Your task to perform on an android device: turn off javascript in the chrome app Image 0: 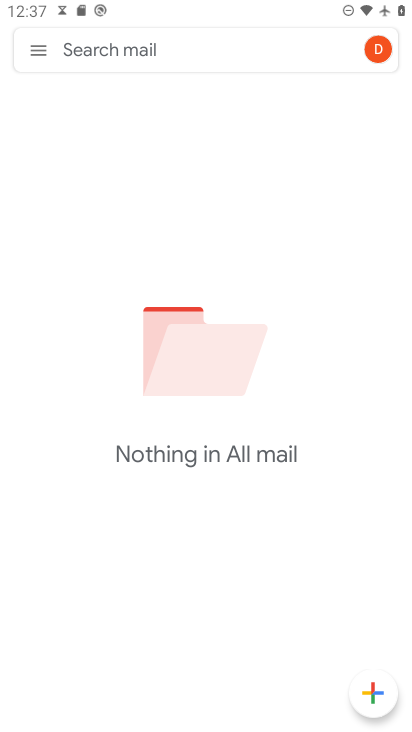
Step 0: press back button
Your task to perform on an android device: turn off javascript in the chrome app Image 1: 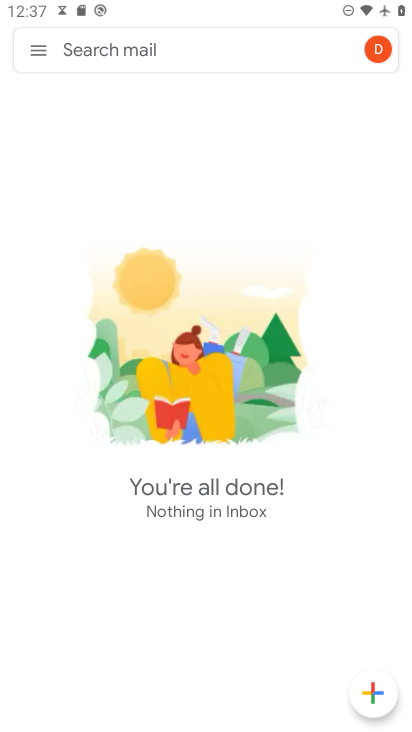
Step 1: press home button
Your task to perform on an android device: turn off javascript in the chrome app Image 2: 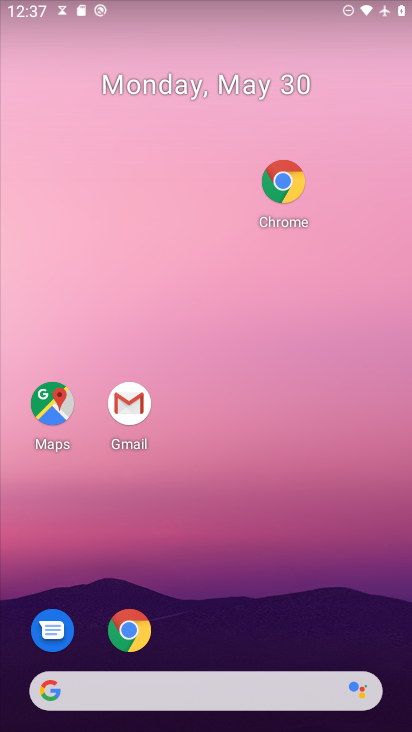
Step 2: drag from (256, 701) to (231, 118)
Your task to perform on an android device: turn off javascript in the chrome app Image 3: 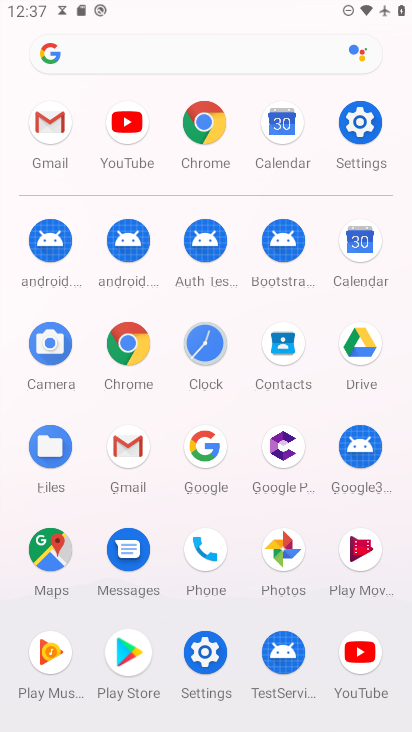
Step 3: click (203, 128)
Your task to perform on an android device: turn off javascript in the chrome app Image 4: 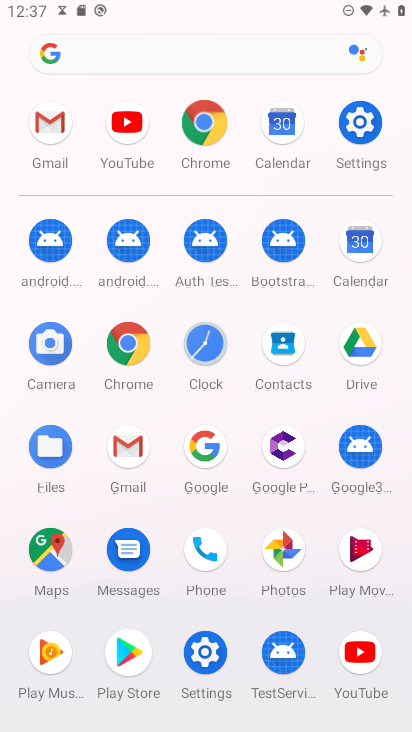
Step 4: click (203, 128)
Your task to perform on an android device: turn off javascript in the chrome app Image 5: 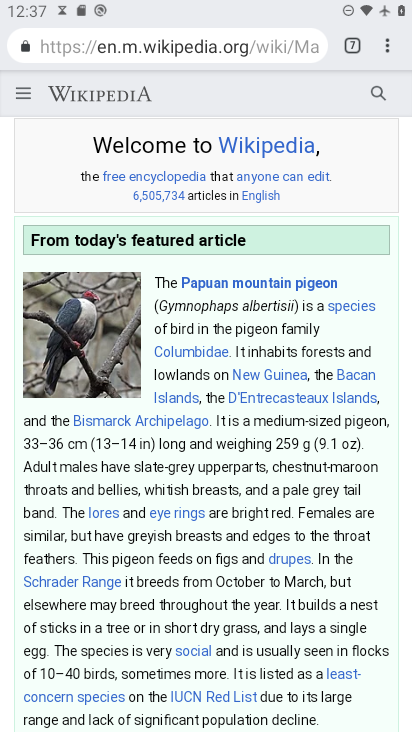
Step 5: drag from (385, 36) to (237, 546)
Your task to perform on an android device: turn off javascript in the chrome app Image 6: 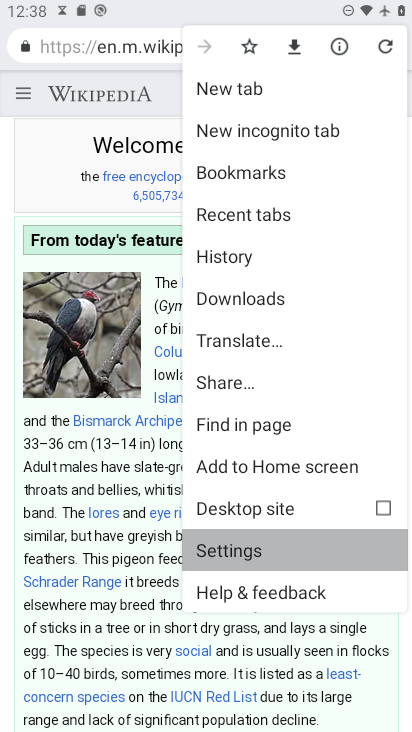
Step 6: click (237, 546)
Your task to perform on an android device: turn off javascript in the chrome app Image 7: 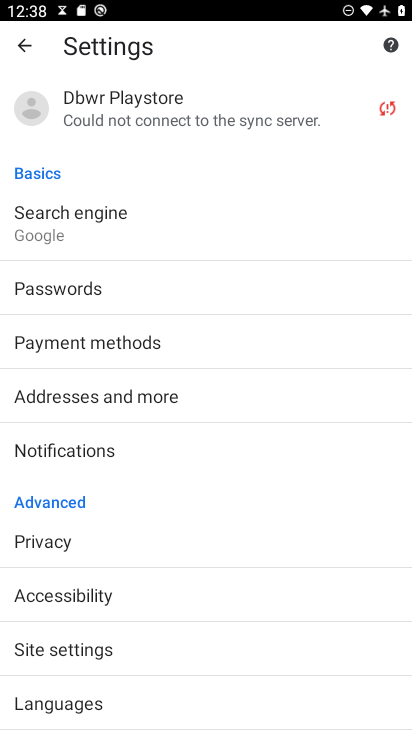
Step 7: click (57, 651)
Your task to perform on an android device: turn off javascript in the chrome app Image 8: 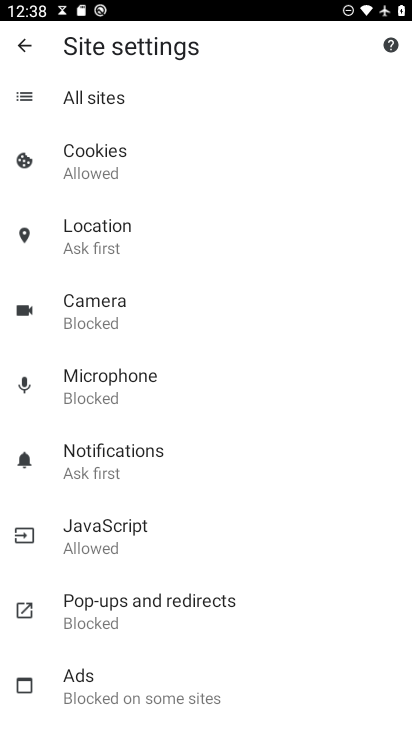
Step 8: click (104, 542)
Your task to perform on an android device: turn off javascript in the chrome app Image 9: 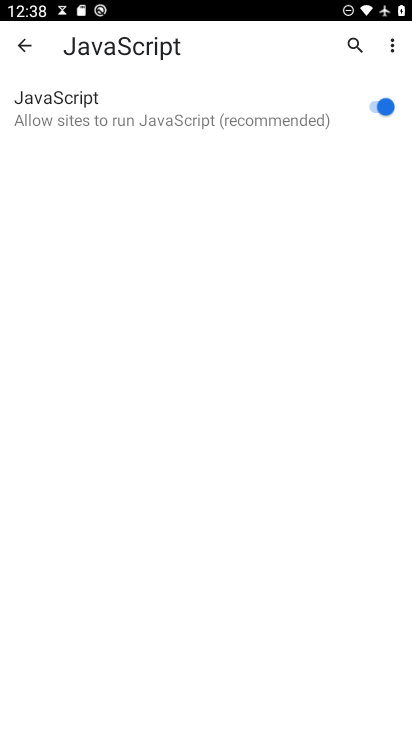
Step 9: click (386, 98)
Your task to perform on an android device: turn off javascript in the chrome app Image 10: 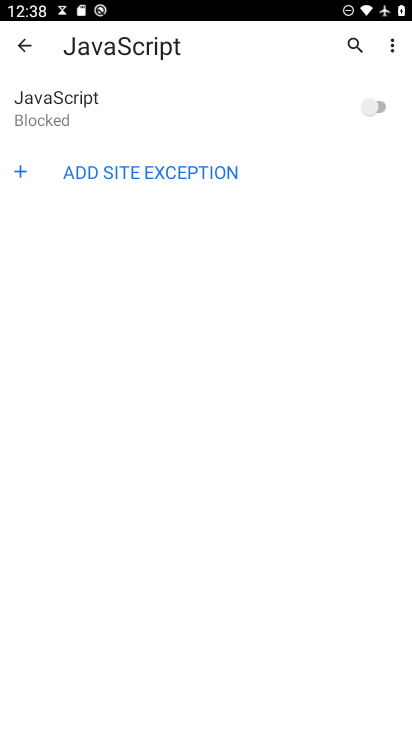
Step 10: task complete